Your task to perform on an android device: find snoozed emails in the gmail app Image 0: 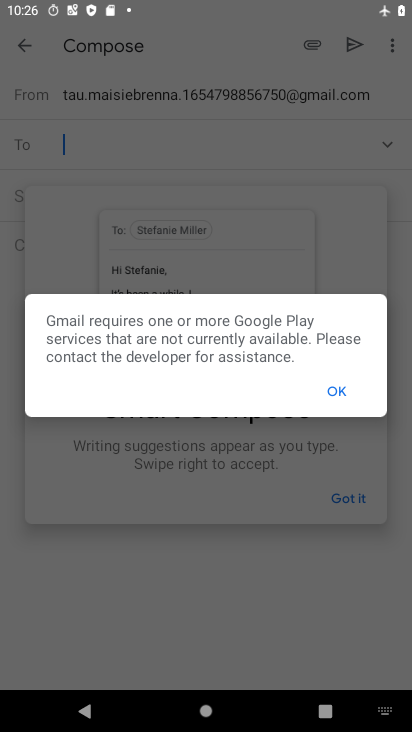
Step 0: drag from (265, 644) to (302, 524)
Your task to perform on an android device: find snoozed emails in the gmail app Image 1: 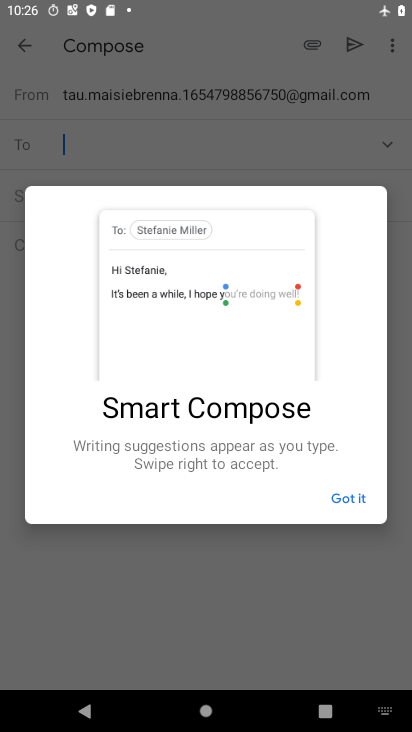
Step 1: press home button
Your task to perform on an android device: find snoozed emails in the gmail app Image 2: 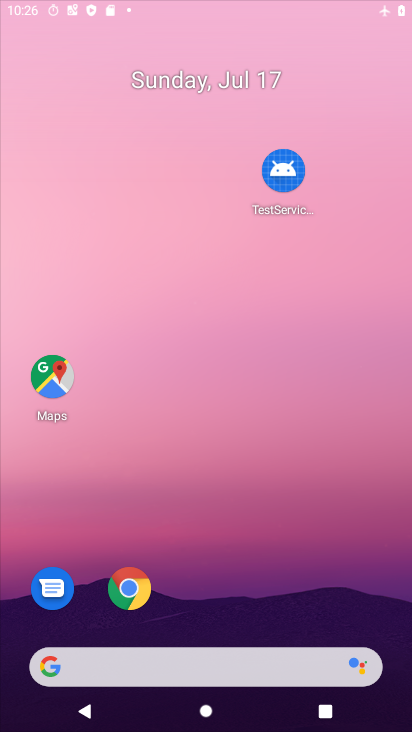
Step 2: drag from (228, 655) to (317, 118)
Your task to perform on an android device: find snoozed emails in the gmail app Image 3: 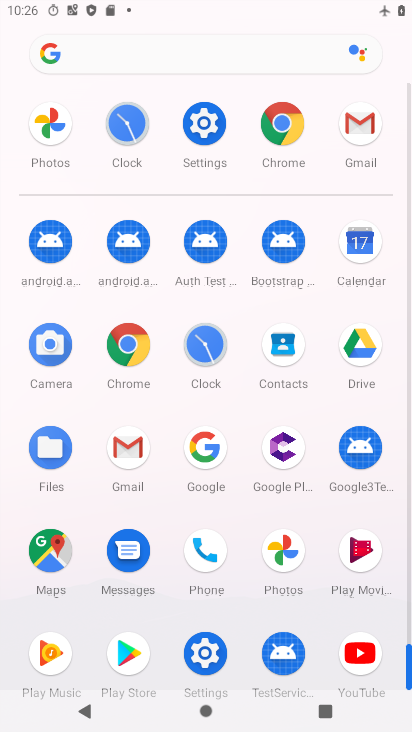
Step 3: click (121, 459)
Your task to perform on an android device: find snoozed emails in the gmail app Image 4: 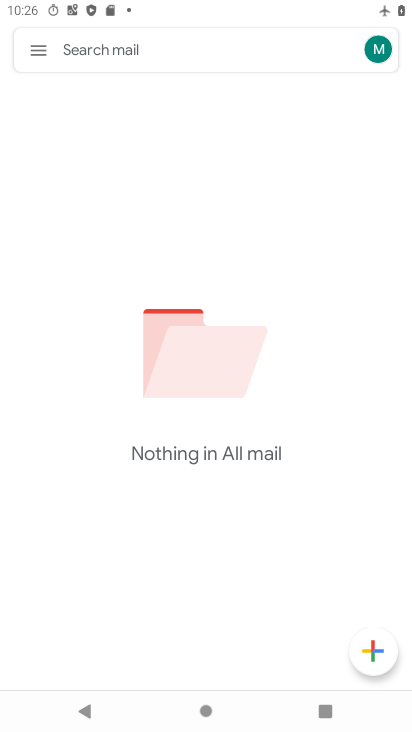
Step 4: click (33, 46)
Your task to perform on an android device: find snoozed emails in the gmail app Image 5: 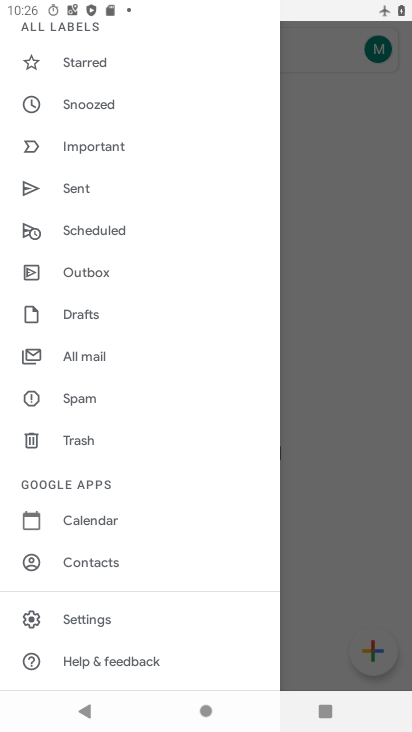
Step 5: click (91, 105)
Your task to perform on an android device: find snoozed emails in the gmail app Image 6: 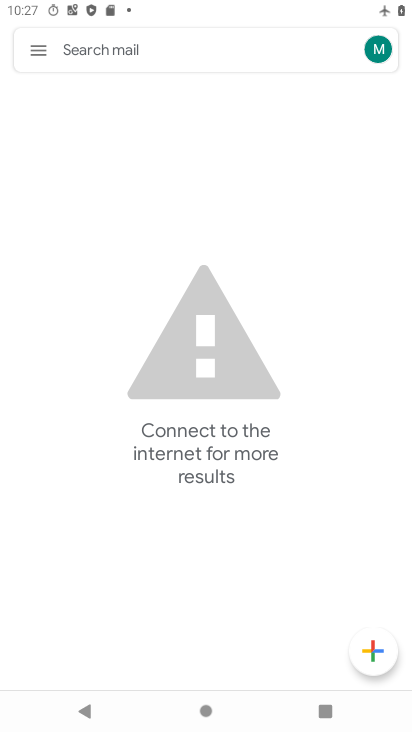
Step 6: task complete